Your task to perform on an android device: manage bookmarks in the chrome app Image 0: 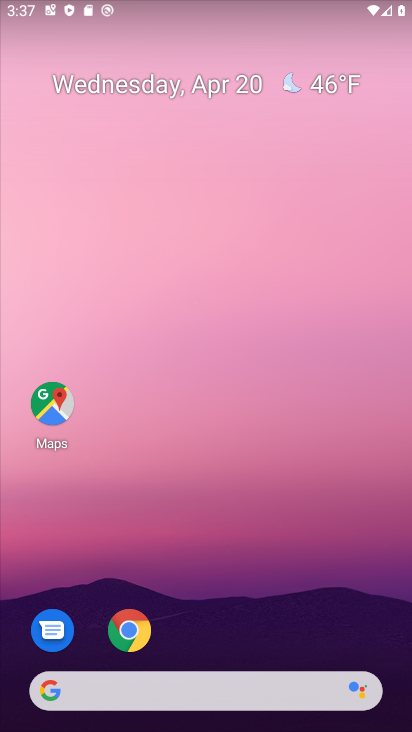
Step 0: drag from (187, 673) to (235, 268)
Your task to perform on an android device: manage bookmarks in the chrome app Image 1: 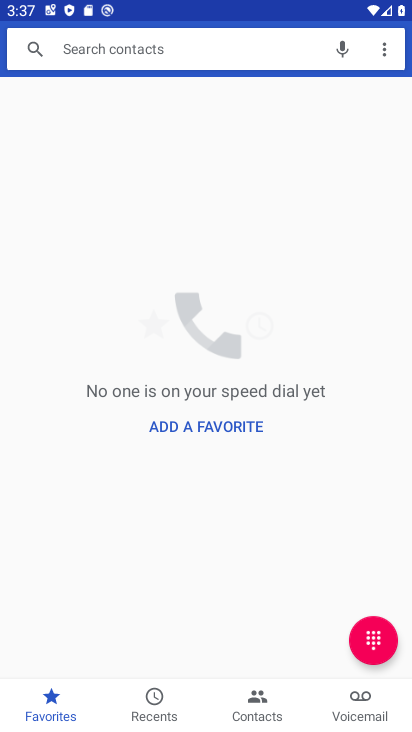
Step 1: press home button
Your task to perform on an android device: manage bookmarks in the chrome app Image 2: 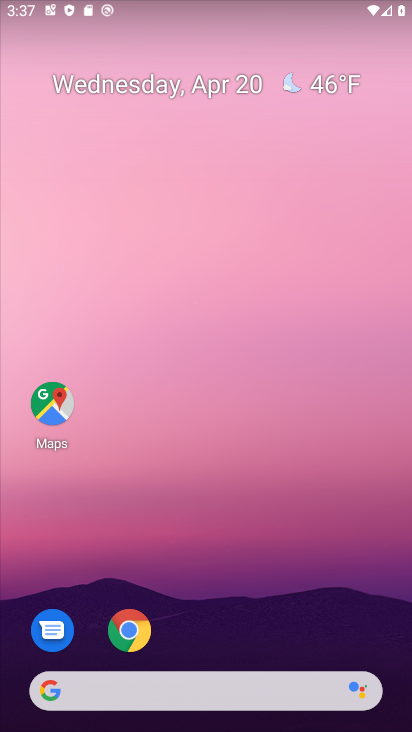
Step 2: drag from (182, 664) to (208, 347)
Your task to perform on an android device: manage bookmarks in the chrome app Image 3: 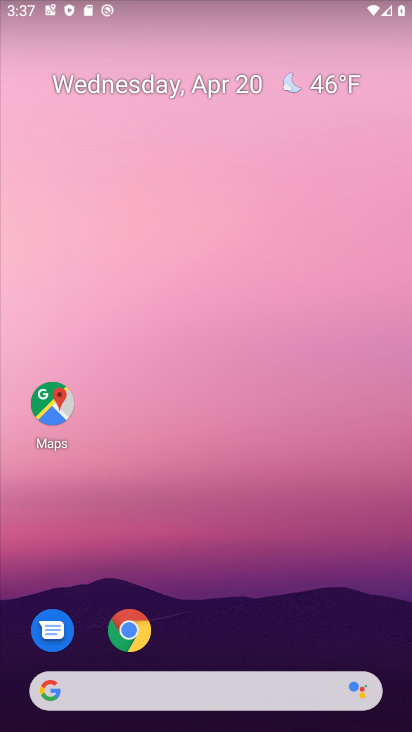
Step 3: drag from (195, 673) to (218, 237)
Your task to perform on an android device: manage bookmarks in the chrome app Image 4: 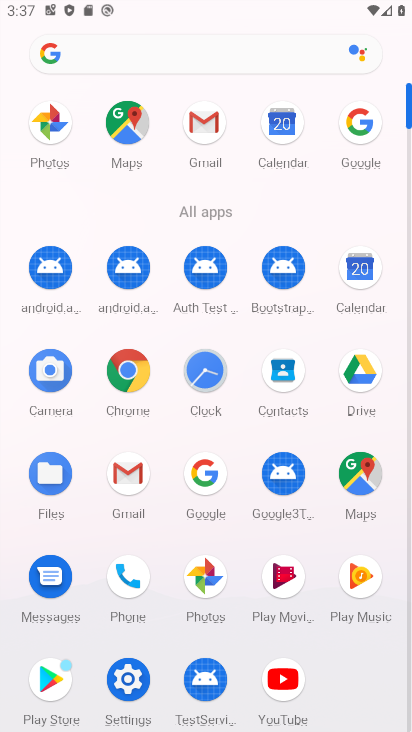
Step 4: click (129, 368)
Your task to perform on an android device: manage bookmarks in the chrome app Image 5: 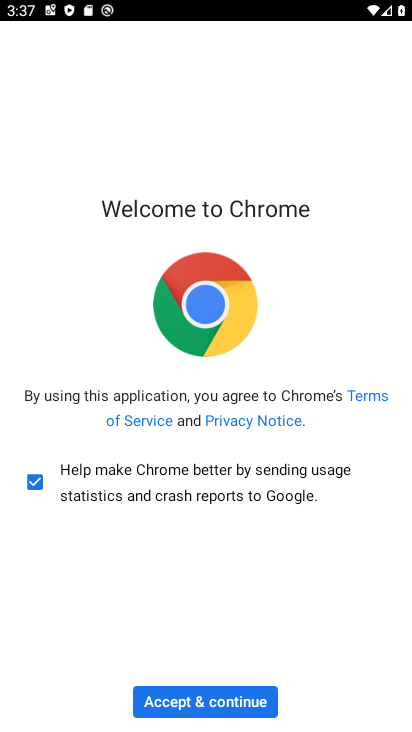
Step 5: click (186, 695)
Your task to perform on an android device: manage bookmarks in the chrome app Image 6: 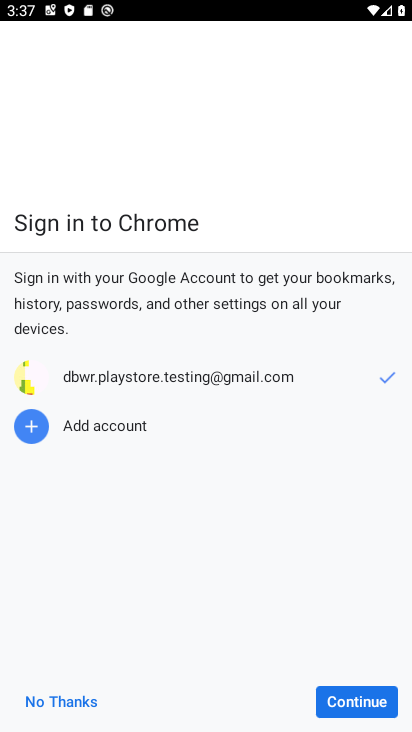
Step 6: click (371, 710)
Your task to perform on an android device: manage bookmarks in the chrome app Image 7: 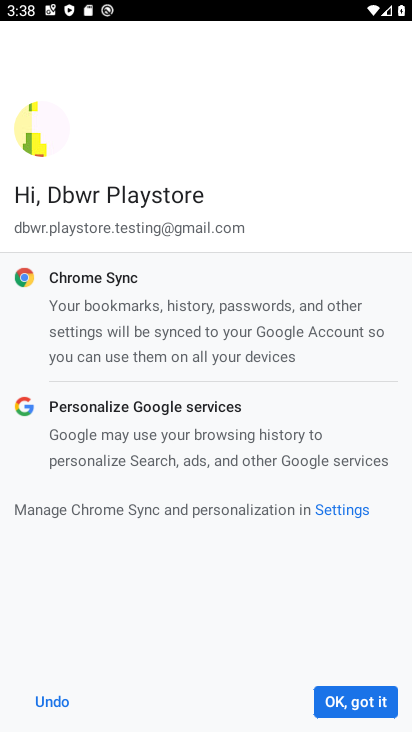
Step 7: click (361, 703)
Your task to perform on an android device: manage bookmarks in the chrome app Image 8: 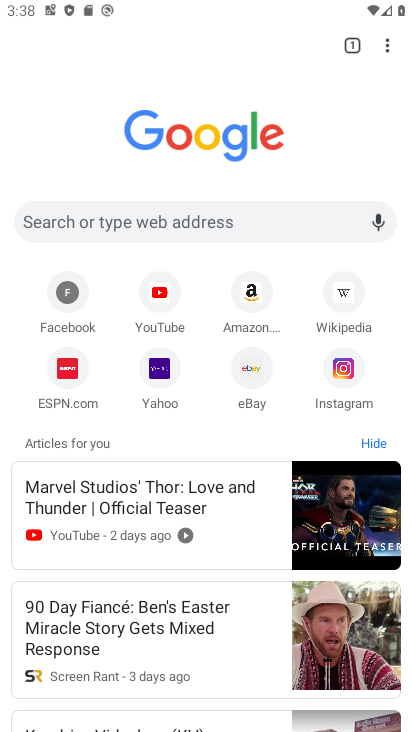
Step 8: click (387, 42)
Your task to perform on an android device: manage bookmarks in the chrome app Image 9: 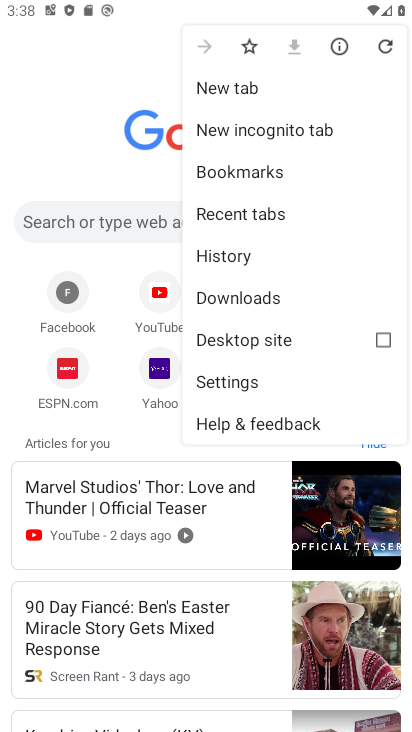
Step 9: click (242, 175)
Your task to perform on an android device: manage bookmarks in the chrome app Image 10: 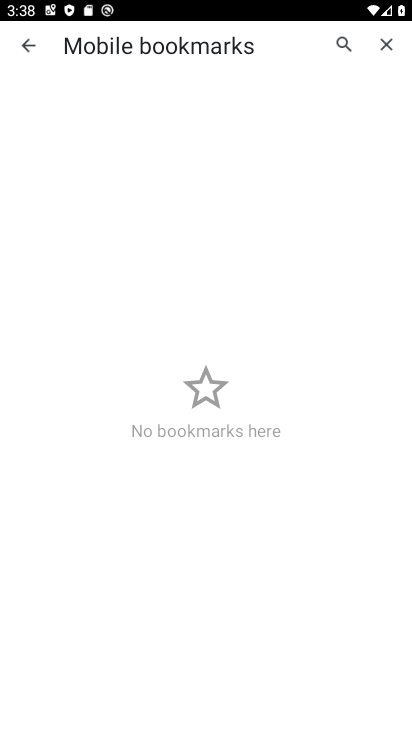
Step 10: task complete